Your task to perform on an android device: Open Amazon Image 0: 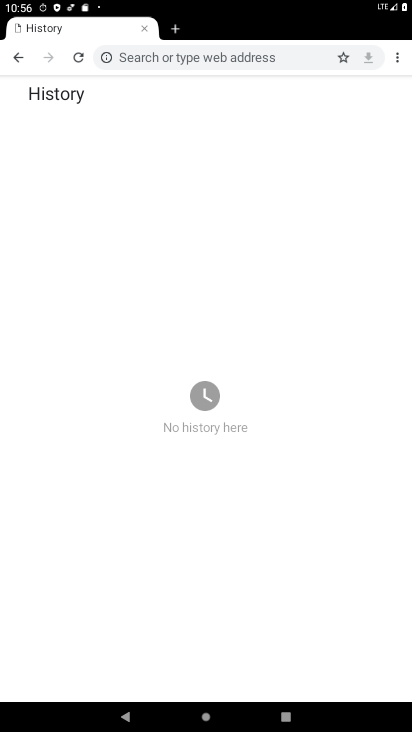
Step 0: press back button
Your task to perform on an android device: Open Amazon Image 1: 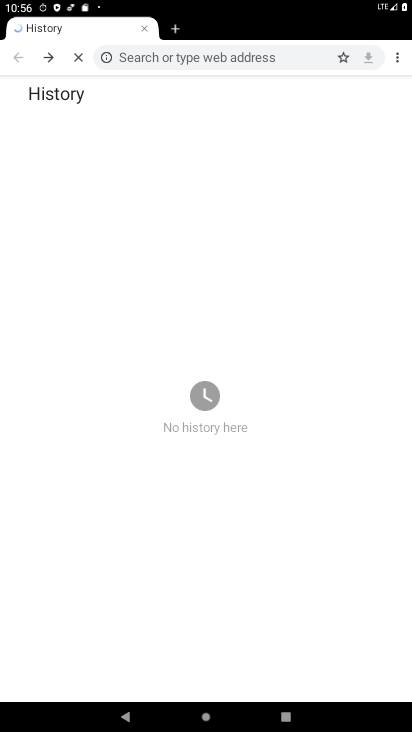
Step 1: press back button
Your task to perform on an android device: Open Amazon Image 2: 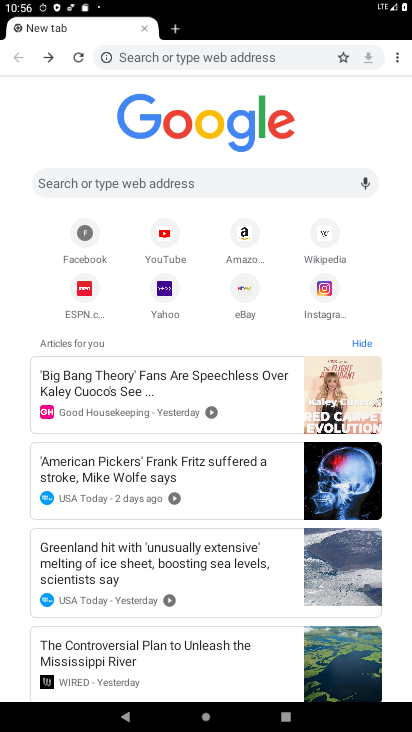
Step 2: click (240, 233)
Your task to perform on an android device: Open Amazon Image 3: 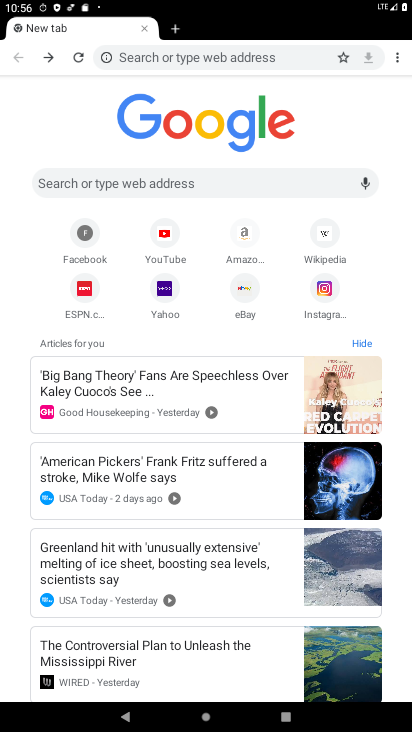
Step 3: click (240, 235)
Your task to perform on an android device: Open Amazon Image 4: 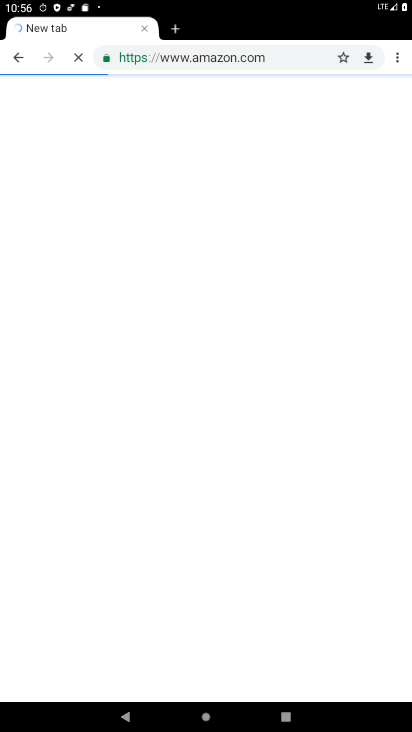
Step 4: click (241, 238)
Your task to perform on an android device: Open Amazon Image 5: 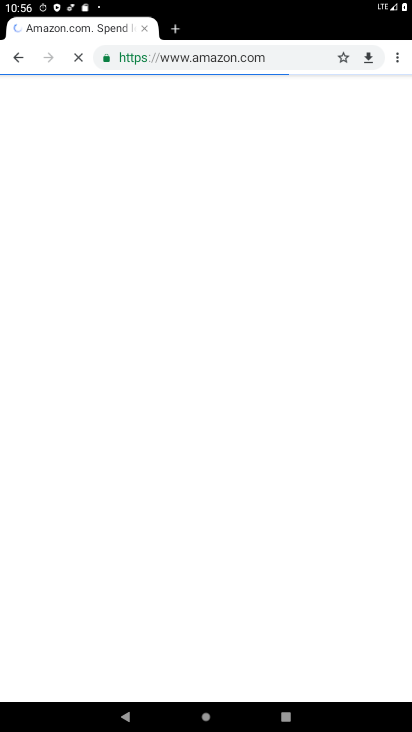
Step 5: click (241, 238)
Your task to perform on an android device: Open Amazon Image 6: 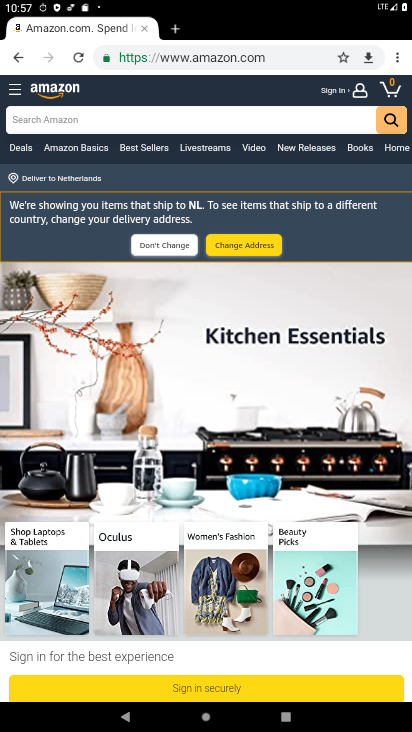
Step 6: task complete